Your task to perform on an android device: Go to Google Image 0: 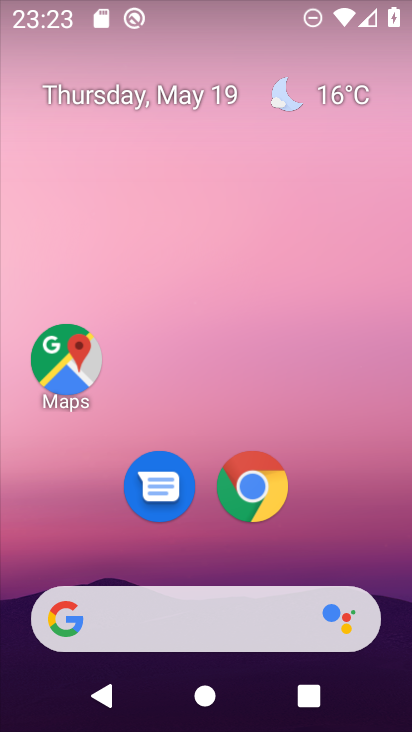
Step 0: click (287, 489)
Your task to perform on an android device: Go to Google Image 1: 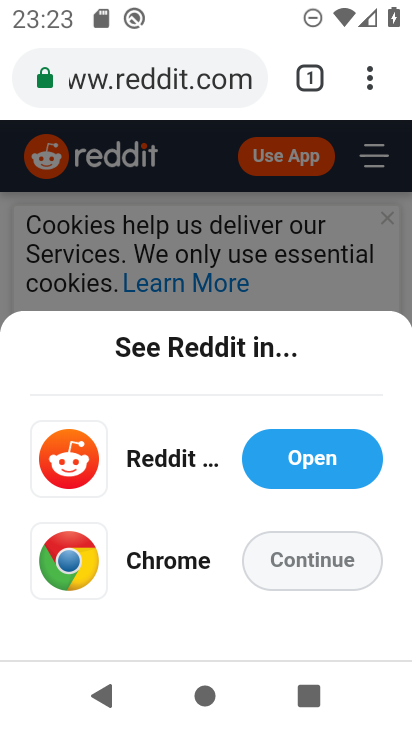
Step 1: click (192, 103)
Your task to perform on an android device: Go to Google Image 2: 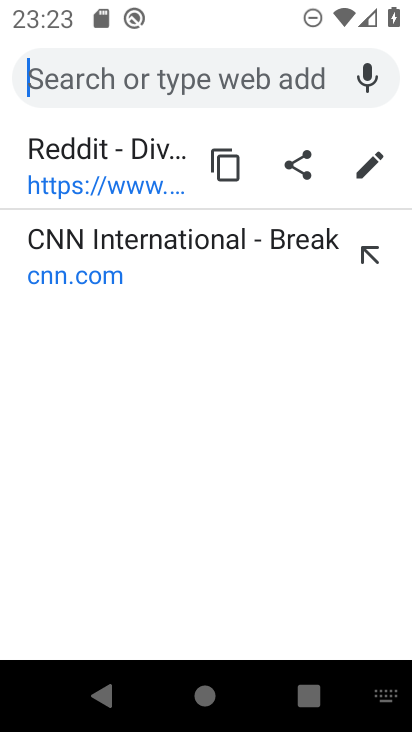
Step 2: type "google.com"
Your task to perform on an android device: Go to Google Image 3: 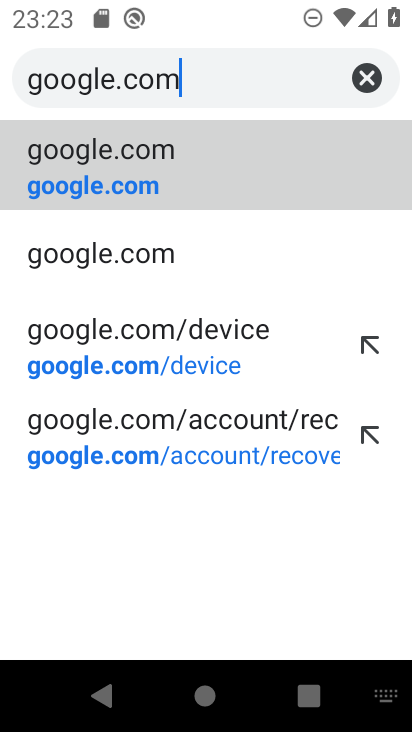
Step 3: click (154, 196)
Your task to perform on an android device: Go to Google Image 4: 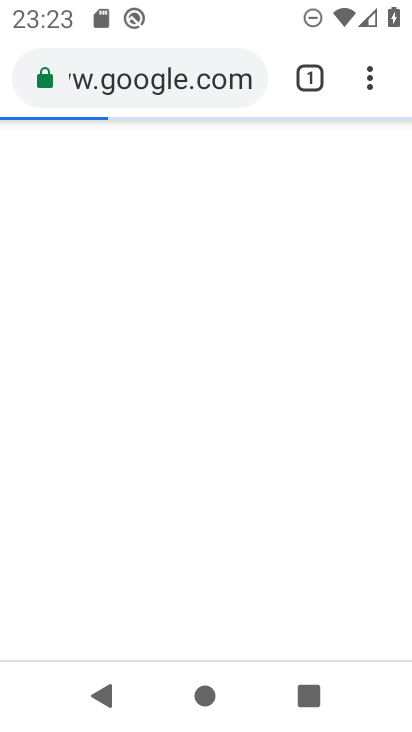
Step 4: task complete